Your task to perform on an android device: change the clock display to analog Image 0: 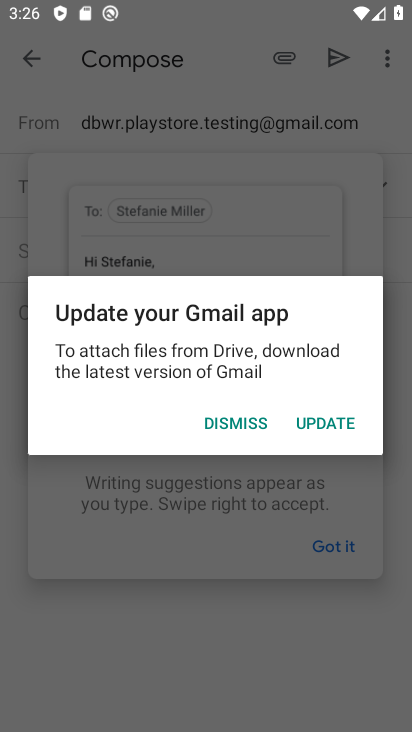
Step 0: press home button
Your task to perform on an android device: change the clock display to analog Image 1: 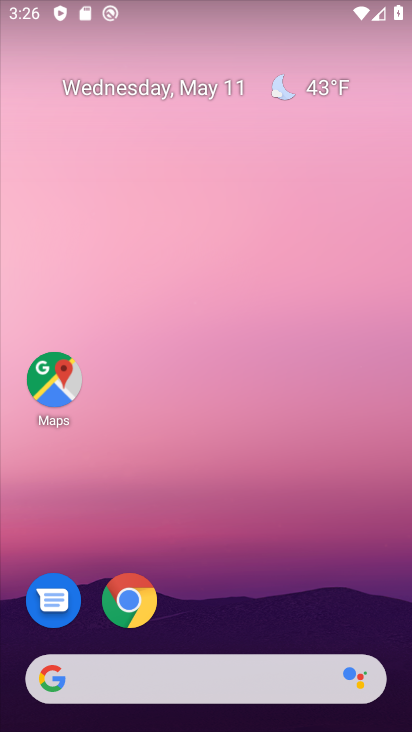
Step 1: drag from (319, 569) to (311, 51)
Your task to perform on an android device: change the clock display to analog Image 2: 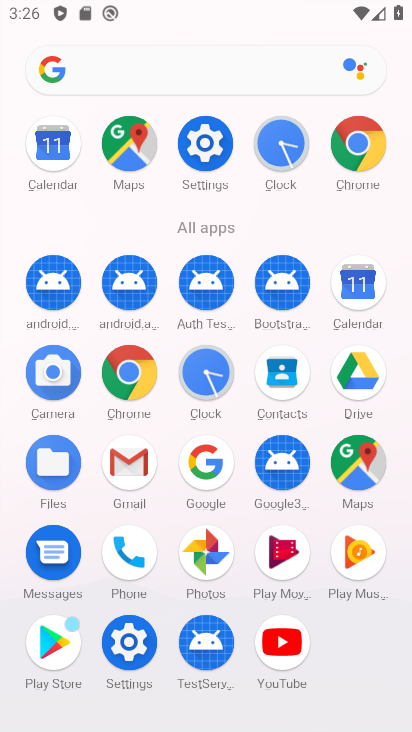
Step 2: click (275, 156)
Your task to perform on an android device: change the clock display to analog Image 3: 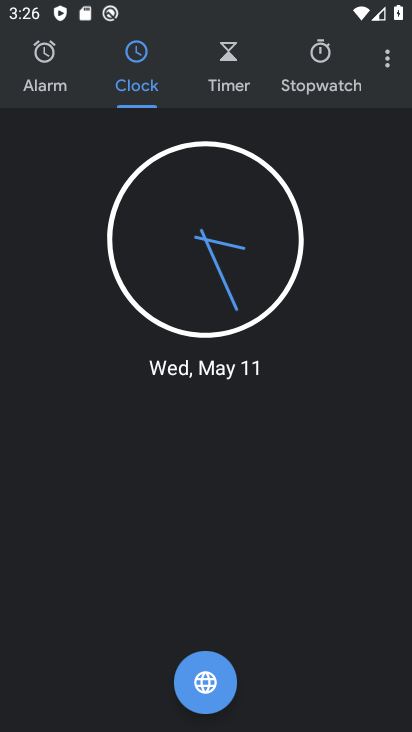
Step 3: click (386, 56)
Your task to perform on an android device: change the clock display to analog Image 4: 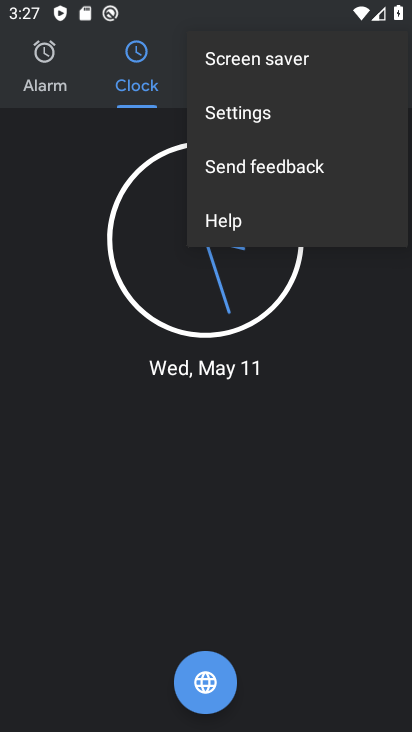
Step 4: click (247, 120)
Your task to perform on an android device: change the clock display to analog Image 5: 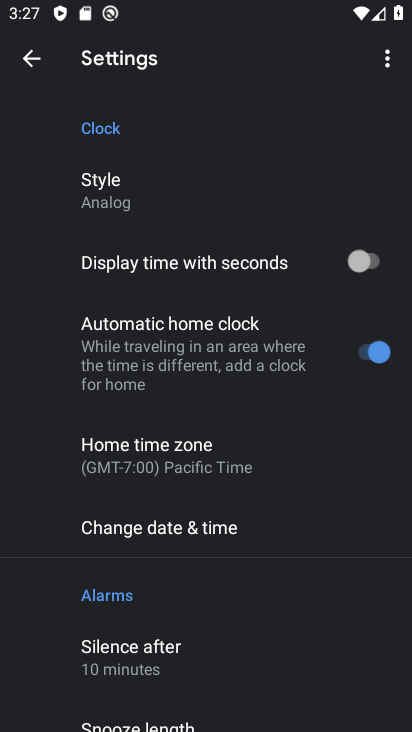
Step 5: task complete